Your task to perform on an android device: visit the assistant section in the google photos Image 0: 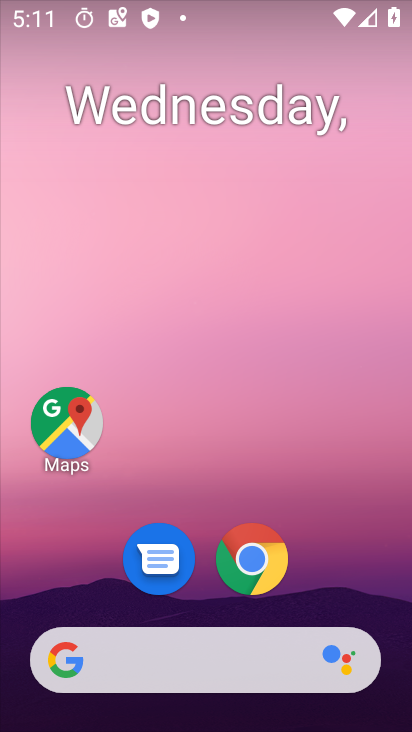
Step 0: drag from (336, 564) to (210, 65)
Your task to perform on an android device: visit the assistant section in the google photos Image 1: 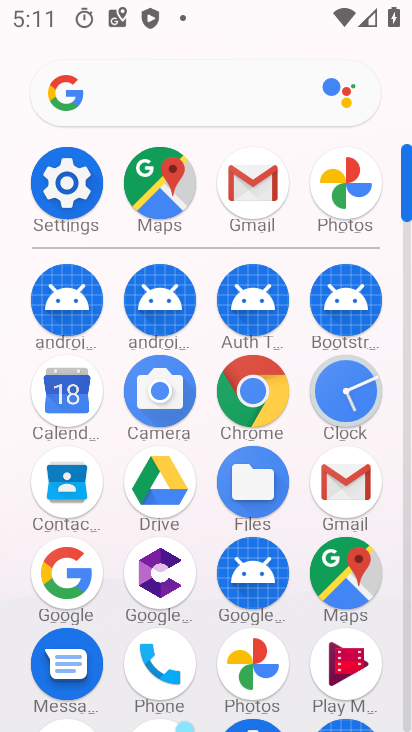
Step 1: click (256, 668)
Your task to perform on an android device: visit the assistant section in the google photos Image 2: 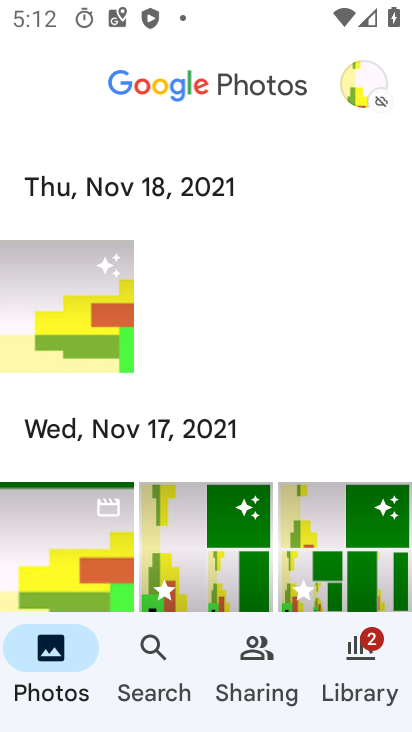
Step 2: task complete